Your task to perform on an android device: Go to Google maps Image 0: 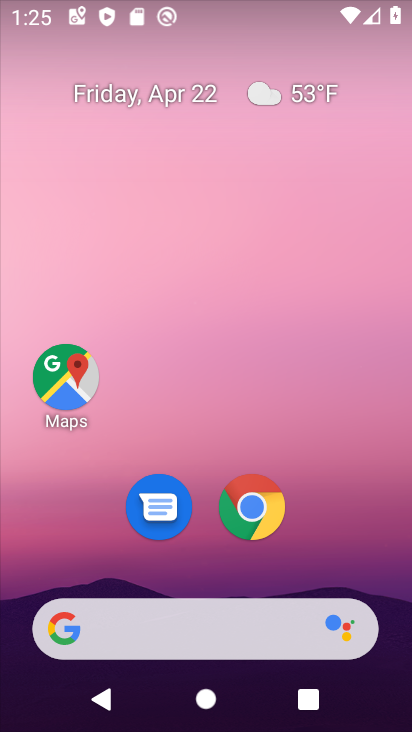
Step 0: click (305, 190)
Your task to perform on an android device: Go to Google maps Image 1: 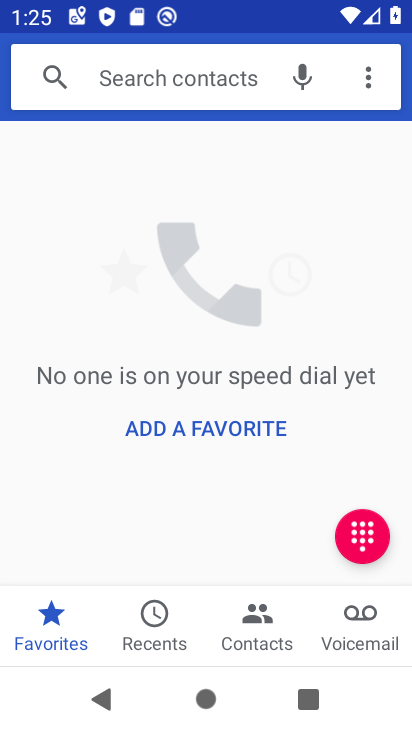
Step 1: press home button
Your task to perform on an android device: Go to Google maps Image 2: 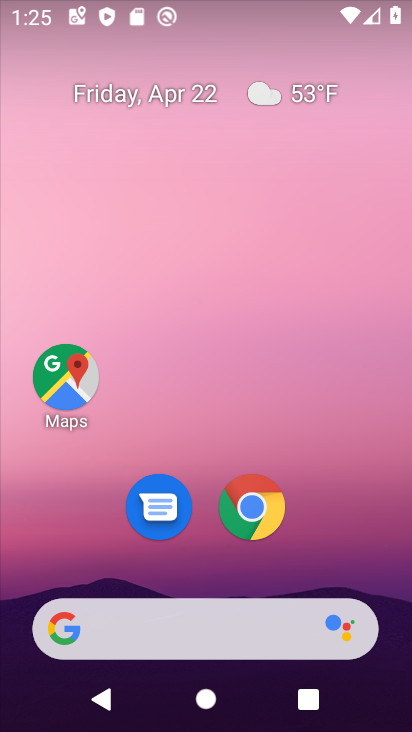
Step 2: drag from (317, 433) to (321, 257)
Your task to perform on an android device: Go to Google maps Image 3: 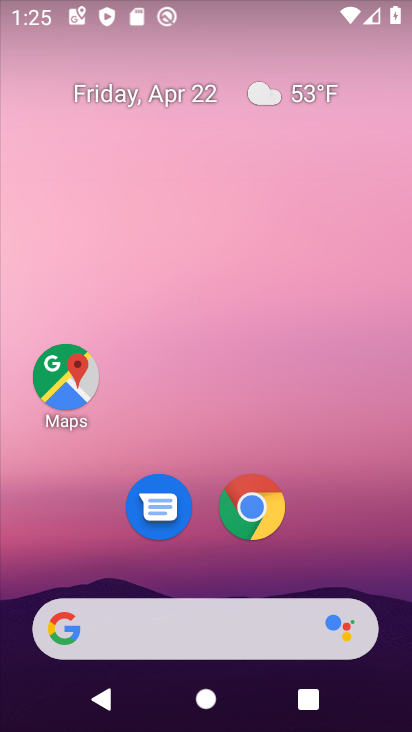
Step 3: click (69, 384)
Your task to perform on an android device: Go to Google maps Image 4: 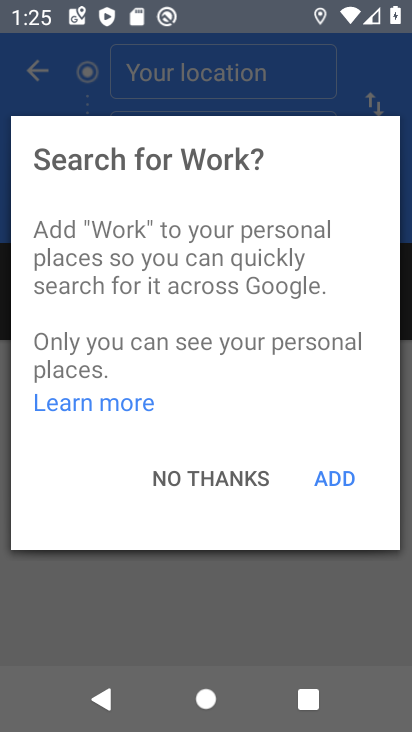
Step 4: click (254, 472)
Your task to perform on an android device: Go to Google maps Image 5: 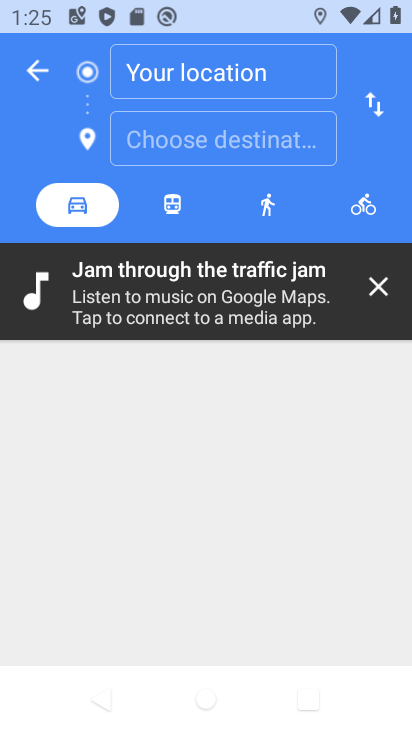
Step 5: task complete